Your task to perform on an android device: Do I have any events tomorrow? Image 0: 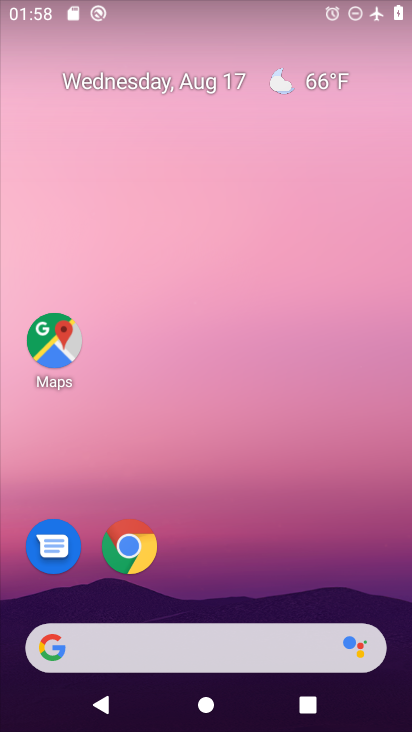
Step 0: drag from (252, 563) to (224, 227)
Your task to perform on an android device: Do I have any events tomorrow? Image 1: 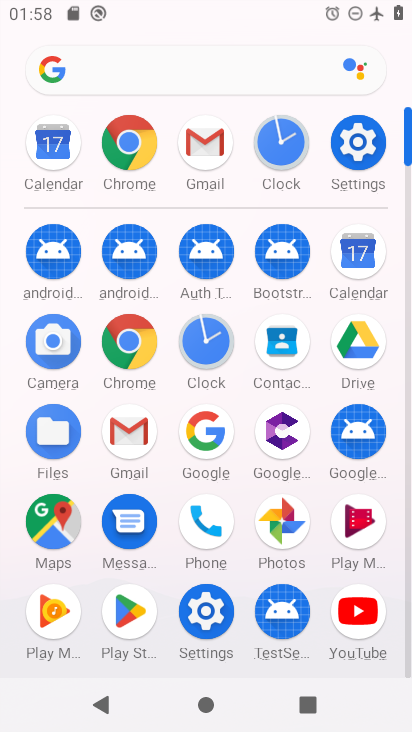
Step 1: click (58, 143)
Your task to perform on an android device: Do I have any events tomorrow? Image 2: 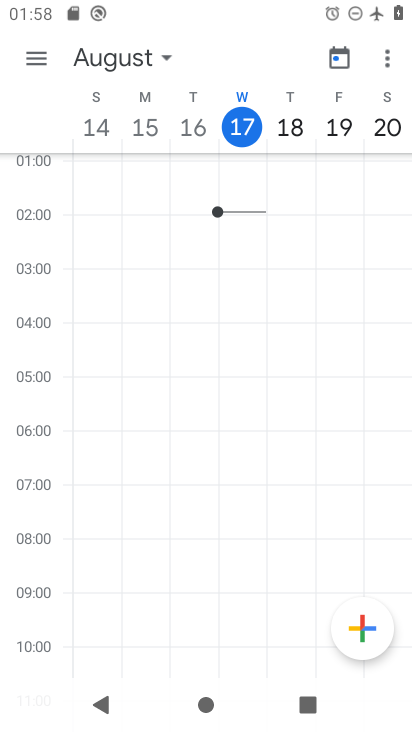
Step 2: click (39, 51)
Your task to perform on an android device: Do I have any events tomorrow? Image 3: 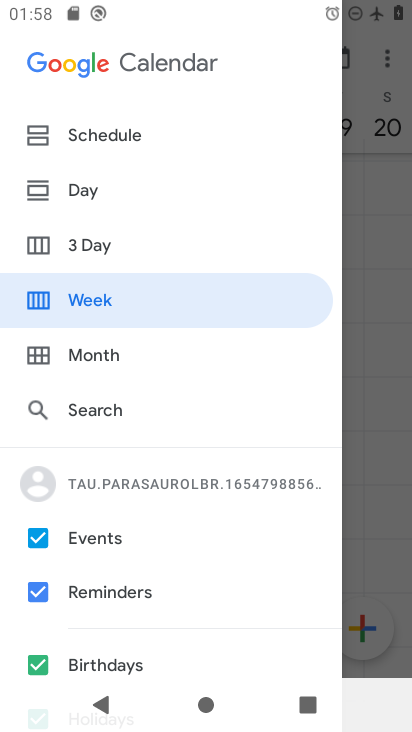
Step 3: click (83, 186)
Your task to perform on an android device: Do I have any events tomorrow? Image 4: 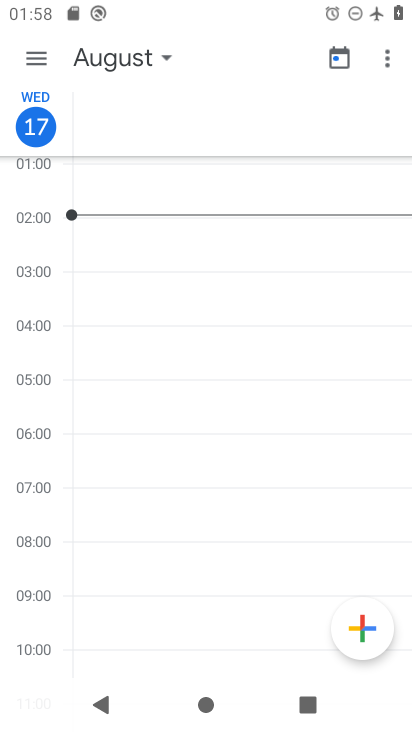
Step 4: click (174, 59)
Your task to perform on an android device: Do I have any events tomorrow? Image 5: 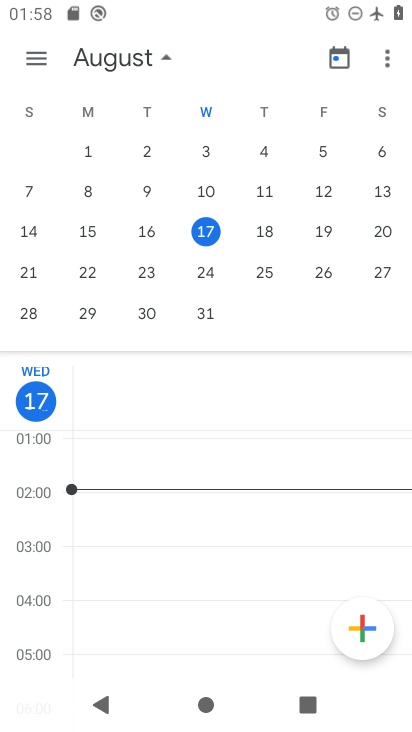
Step 5: click (262, 229)
Your task to perform on an android device: Do I have any events tomorrow? Image 6: 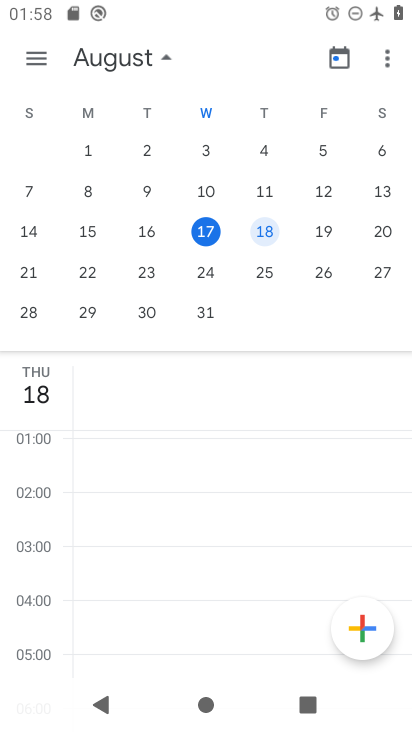
Step 6: task complete